Your task to perform on an android device: Go to ESPN.com Image 0: 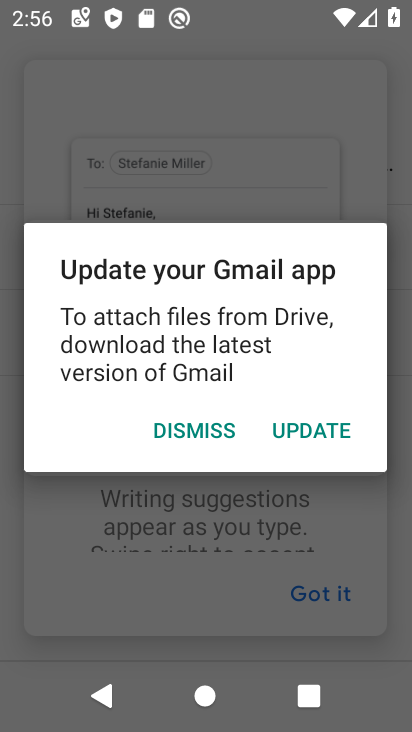
Step 0: press home button
Your task to perform on an android device: Go to ESPN.com Image 1: 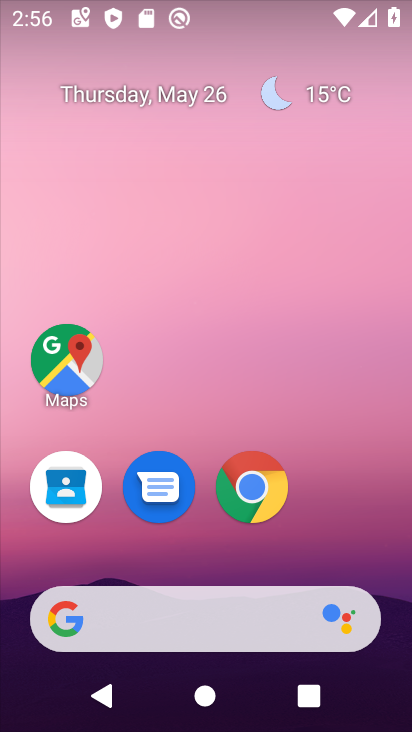
Step 1: click (241, 528)
Your task to perform on an android device: Go to ESPN.com Image 2: 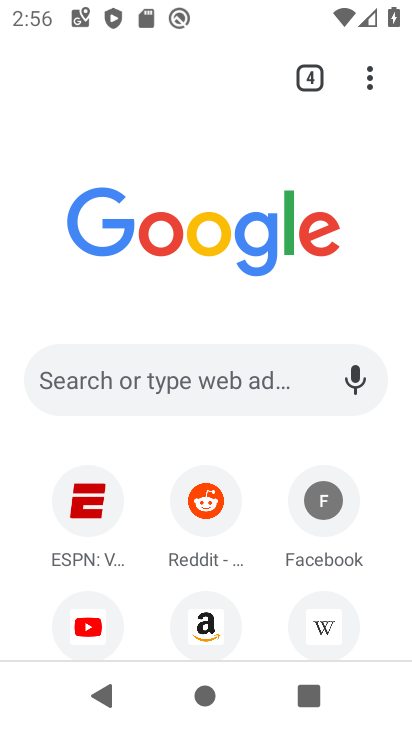
Step 2: click (85, 531)
Your task to perform on an android device: Go to ESPN.com Image 3: 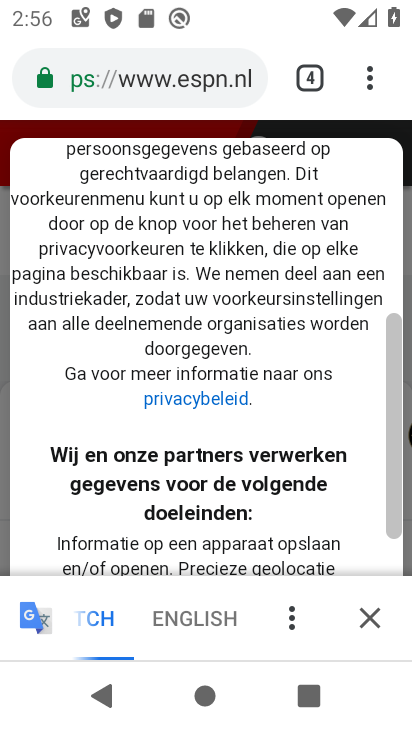
Step 3: task complete